Your task to perform on an android device: Open the stopwatch Image 0: 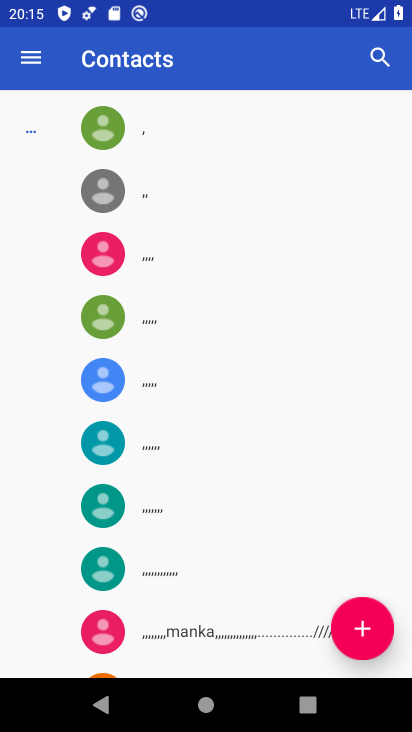
Step 0: press back button
Your task to perform on an android device: Open the stopwatch Image 1: 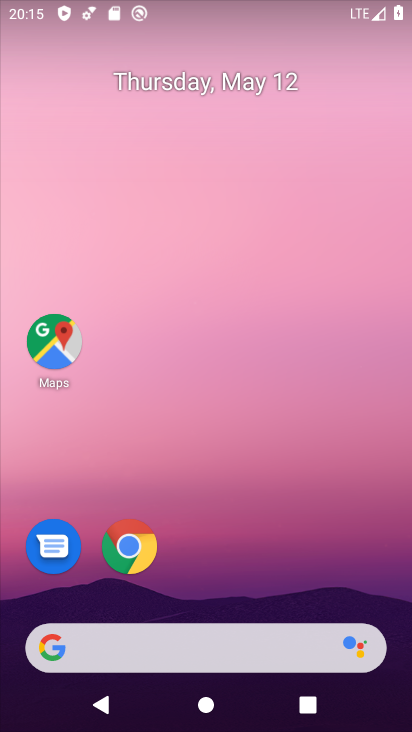
Step 1: drag from (242, 570) to (280, 11)
Your task to perform on an android device: Open the stopwatch Image 2: 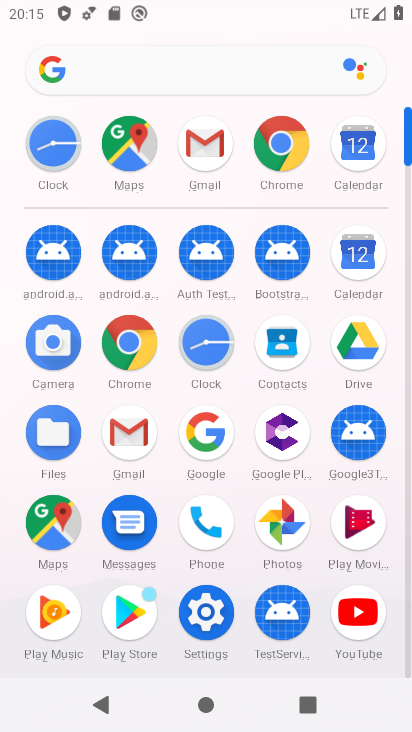
Step 2: click (214, 343)
Your task to perform on an android device: Open the stopwatch Image 3: 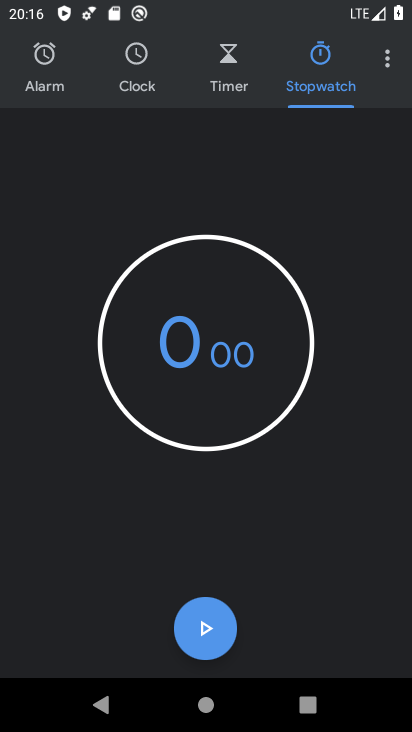
Step 3: task complete